Your task to perform on an android device: Do I have any events this weekend? Image 0: 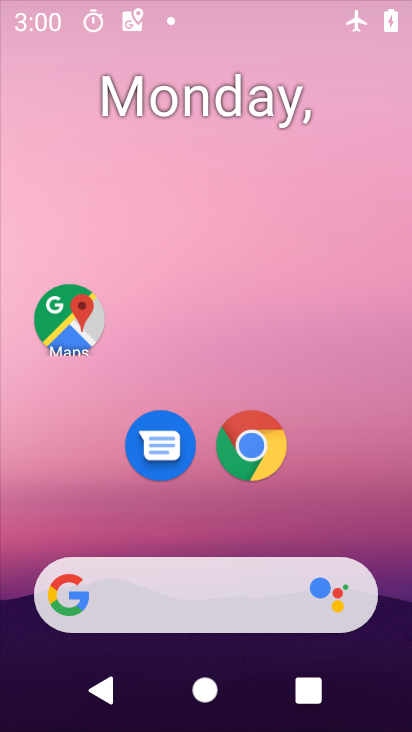
Step 0: drag from (314, 6) to (269, 423)
Your task to perform on an android device: Do I have any events this weekend? Image 1: 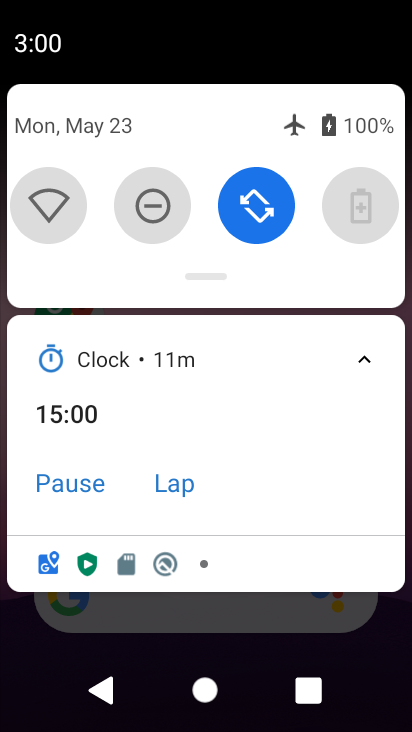
Step 1: drag from (217, 274) to (209, 592)
Your task to perform on an android device: Do I have any events this weekend? Image 2: 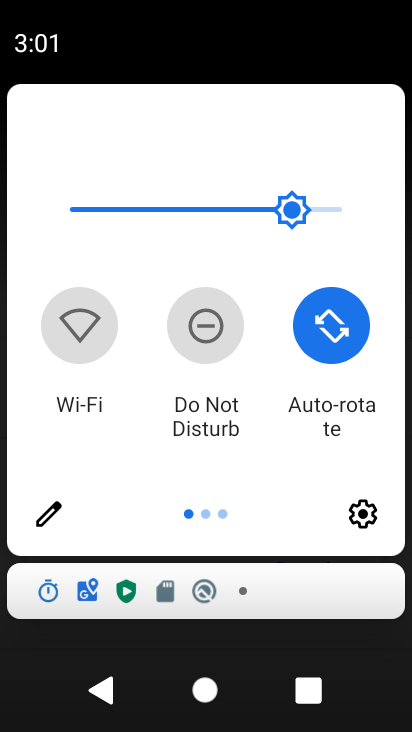
Step 2: press home button
Your task to perform on an android device: Do I have any events this weekend? Image 3: 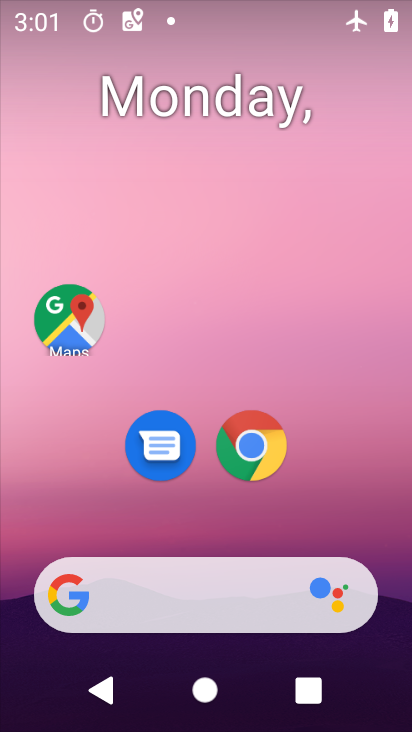
Step 3: drag from (205, 580) to (210, 130)
Your task to perform on an android device: Do I have any events this weekend? Image 4: 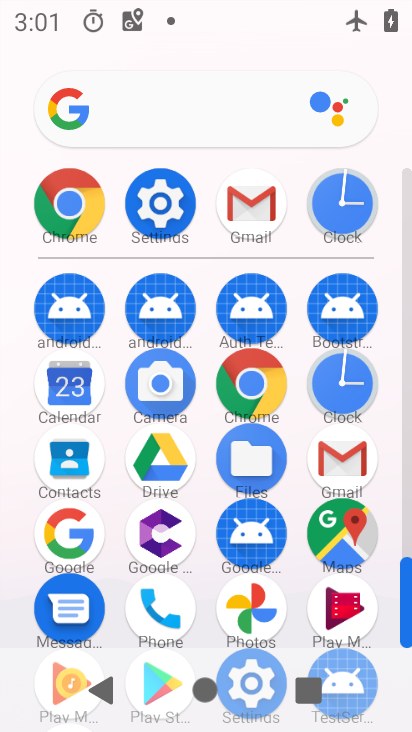
Step 4: click (87, 387)
Your task to perform on an android device: Do I have any events this weekend? Image 5: 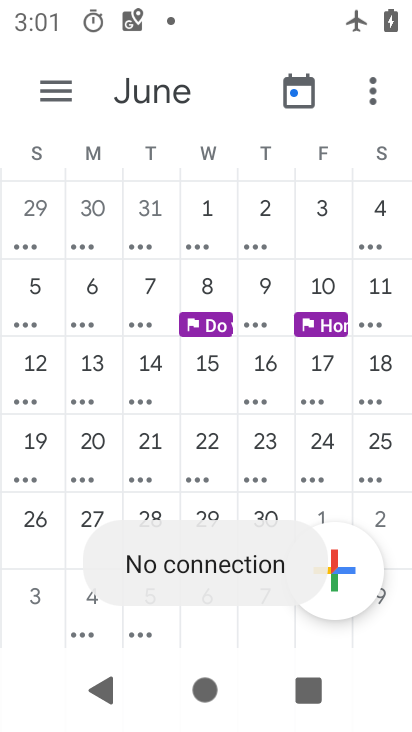
Step 5: click (45, 91)
Your task to perform on an android device: Do I have any events this weekend? Image 6: 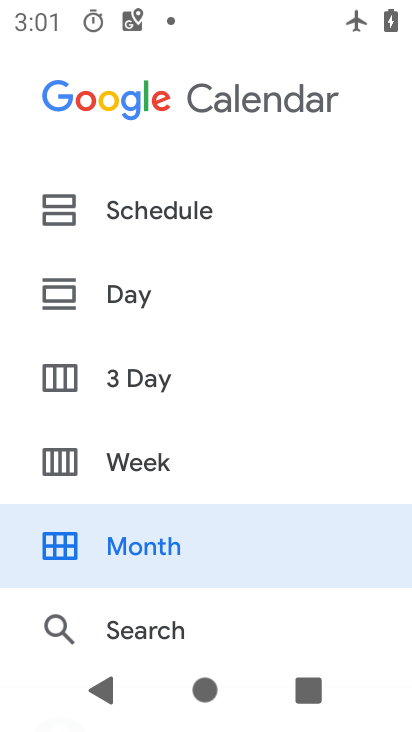
Step 6: click (133, 468)
Your task to perform on an android device: Do I have any events this weekend? Image 7: 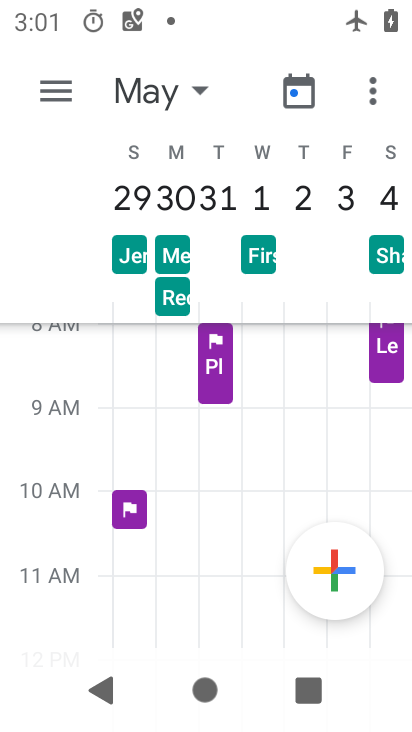
Step 7: task complete